Your task to perform on an android device: change text size in settings app Image 0: 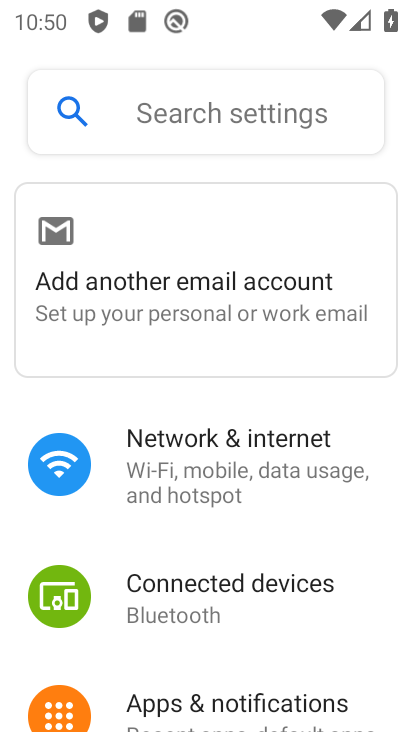
Step 0: press home button
Your task to perform on an android device: change text size in settings app Image 1: 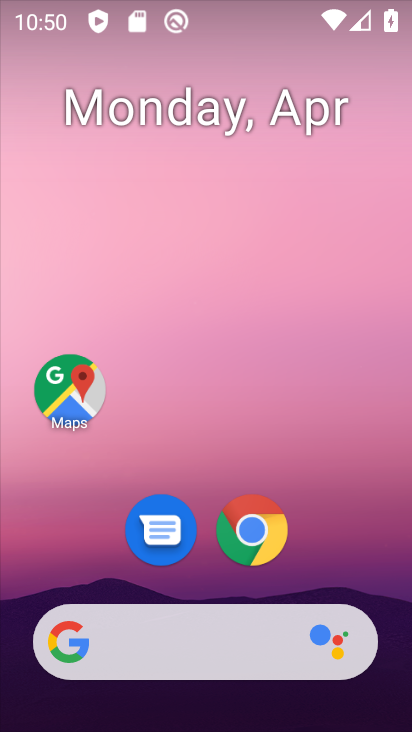
Step 1: drag from (374, 594) to (203, 16)
Your task to perform on an android device: change text size in settings app Image 2: 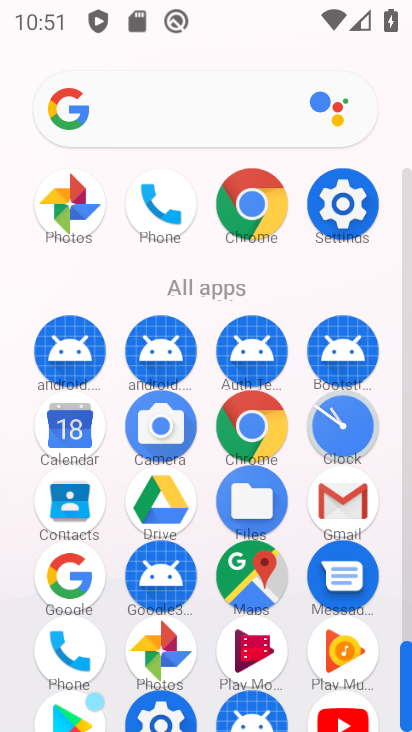
Step 2: click (344, 194)
Your task to perform on an android device: change text size in settings app Image 3: 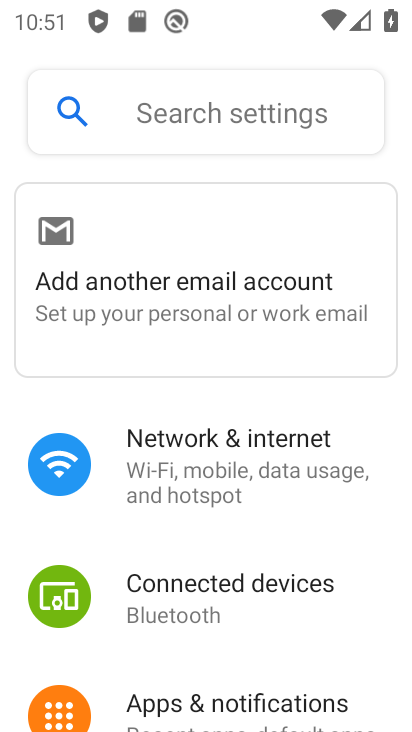
Step 3: drag from (245, 632) to (235, 131)
Your task to perform on an android device: change text size in settings app Image 4: 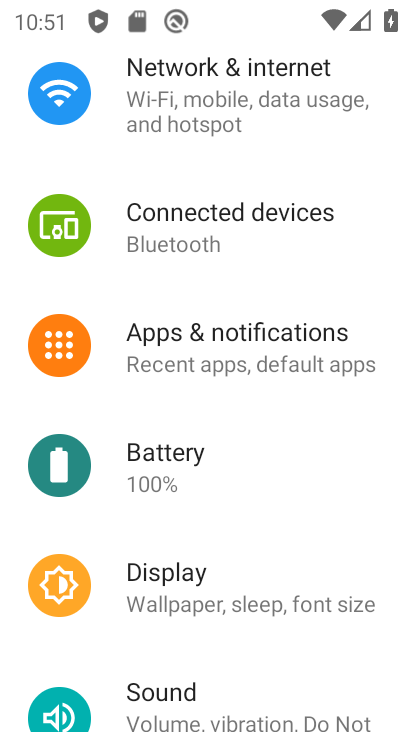
Step 4: click (203, 595)
Your task to perform on an android device: change text size in settings app Image 5: 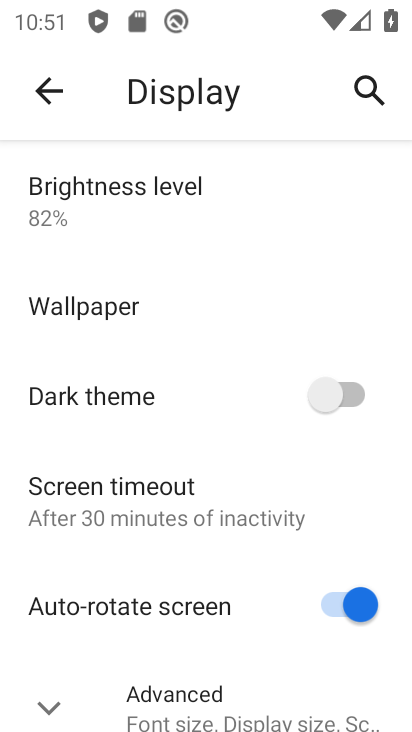
Step 5: click (174, 691)
Your task to perform on an android device: change text size in settings app Image 6: 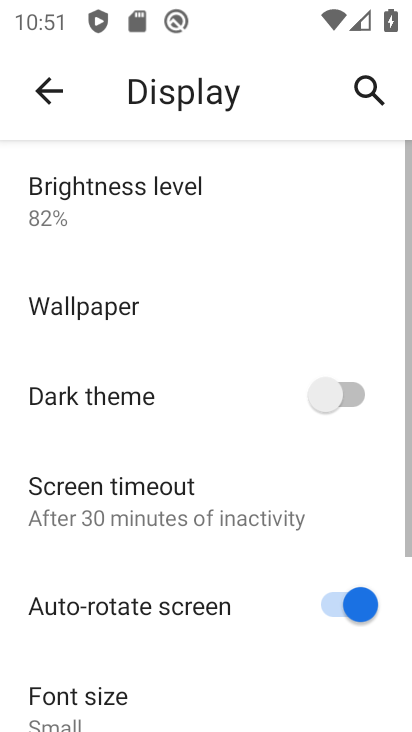
Step 6: drag from (182, 638) to (201, 179)
Your task to perform on an android device: change text size in settings app Image 7: 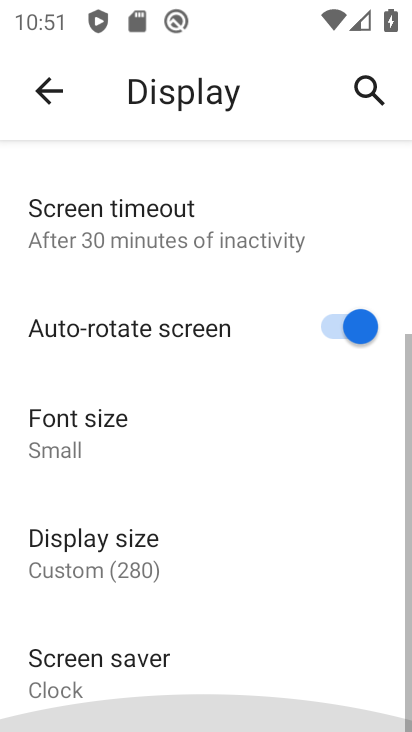
Step 7: click (142, 437)
Your task to perform on an android device: change text size in settings app Image 8: 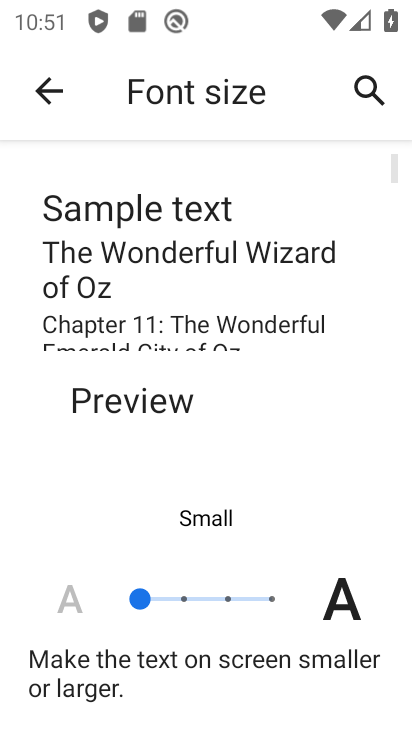
Step 8: click (181, 596)
Your task to perform on an android device: change text size in settings app Image 9: 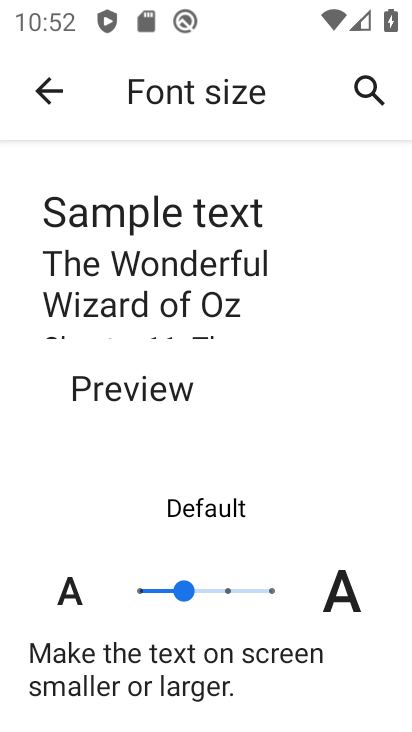
Step 9: task complete